Your task to perform on an android device: turn off translation in the chrome app Image 0: 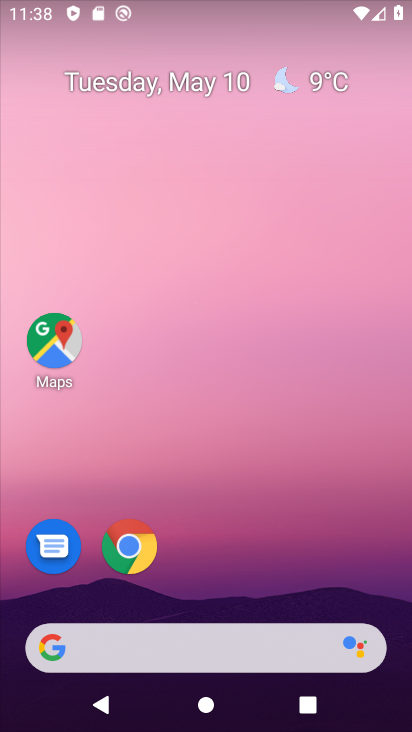
Step 0: click (135, 570)
Your task to perform on an android device: turn off translation in the chrome app Image 1: 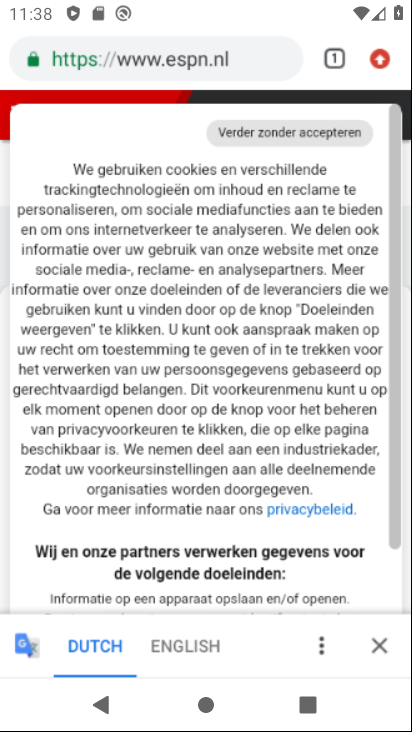
Step 1: click (380, 57)
Your task to perform on an android device: turn off translation in the chrome app Image 2: 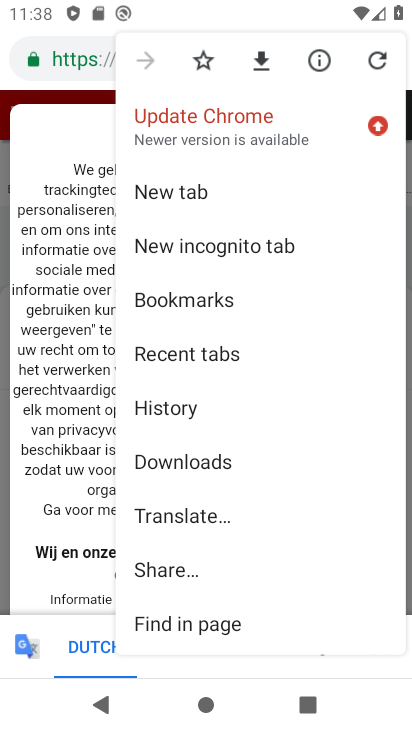
Step 2: drag from (219, 612) to (257, 244)
Your task to perform on an android device: turn off translation in the chrome app Image 3: 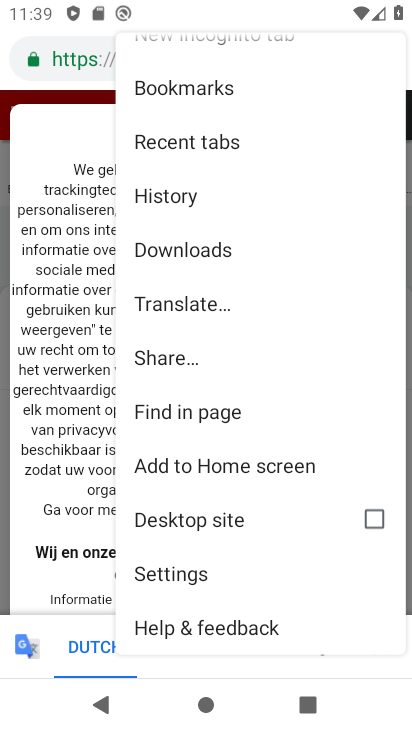
Step 3: click (206, 564)
Your task to perform on an android device: turn off translation in the chrome app Image 4: 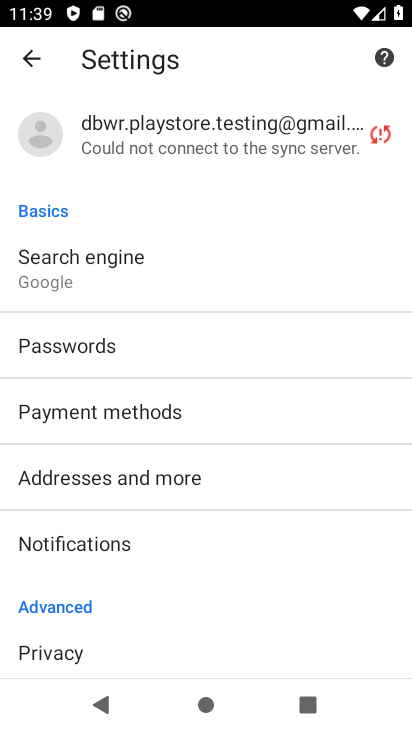
Step 4: drag from (155, 623) to (206, 300)
Your task to perform on an android device: turn off translation in the chrome app Image 5: 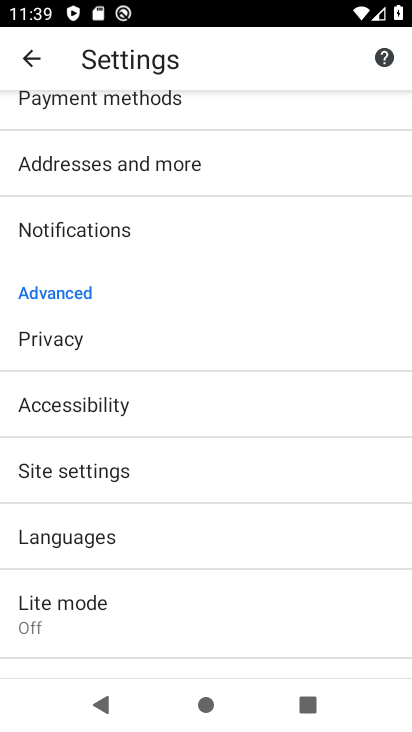
Step 5: click (120, 539)
Your task to perform on an android device: turn off translation in the chrome app Image 6: 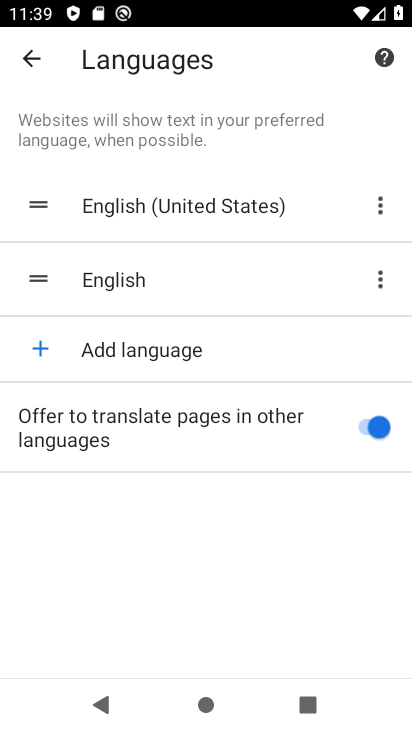
Step 6: click (380, 422)
Your task to perform on an android device: turn off translation in the chrome app Image 7: 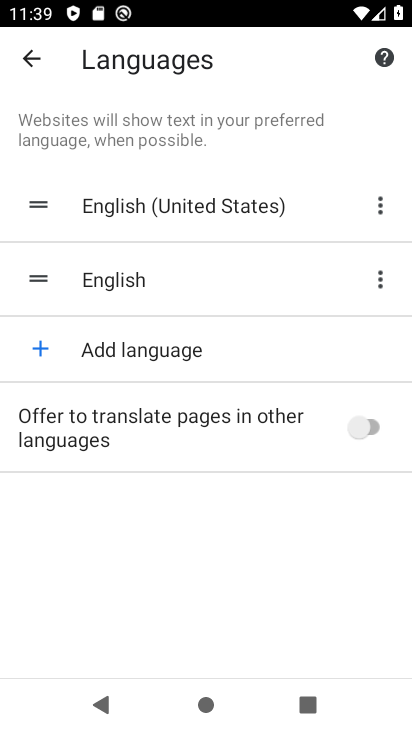
Step 7: task complete